Your task to perform on an android device: open sync settings in chrome Image 0: 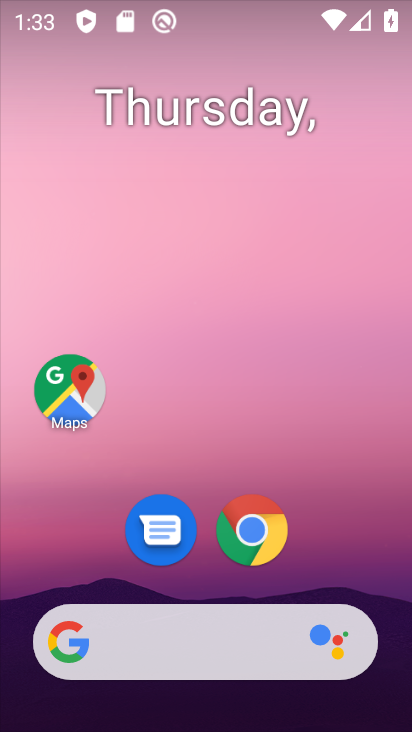
Step 0: drag from (220, 729) to (122, 0)
Your task to perform on an android device: open sync settings in chrome Image 1: 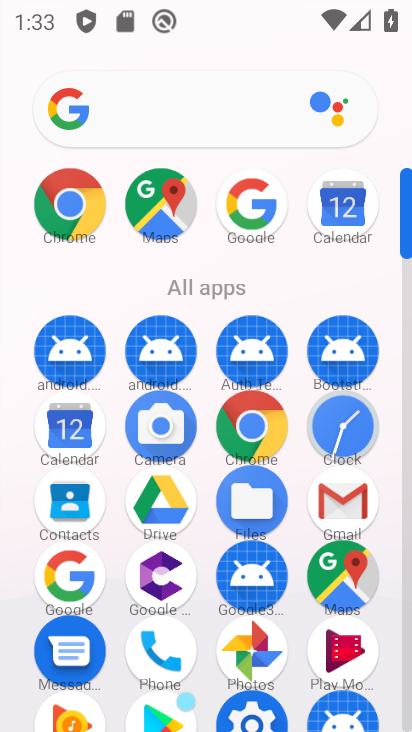
Step 1: drag from (274, 658) to (211, 102)
Your task to perform on an android device: open sync settings in chrome Image 2: 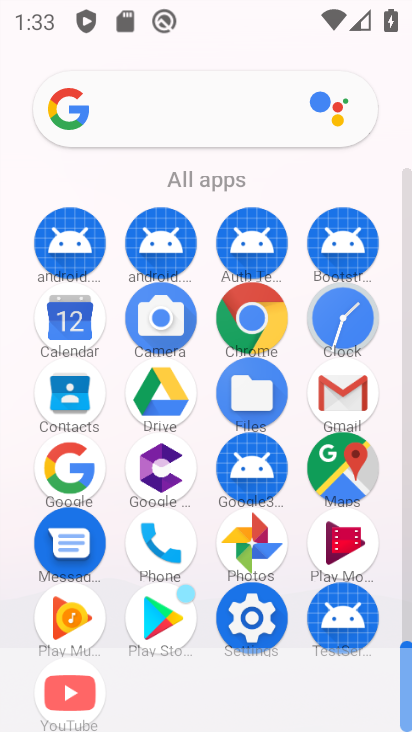
Step 2: click (240, 626)
Your task to perform on an android device: open sync settings in chrome Image 3: 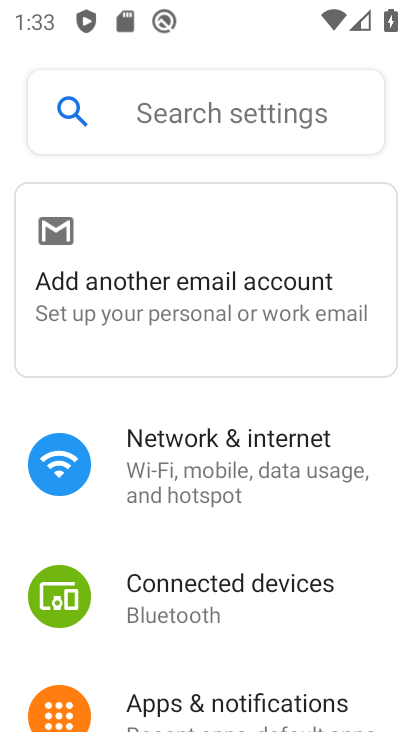
Step 3: press home button
Your task to perform on an android device: open sync settings in chrome Image 4: 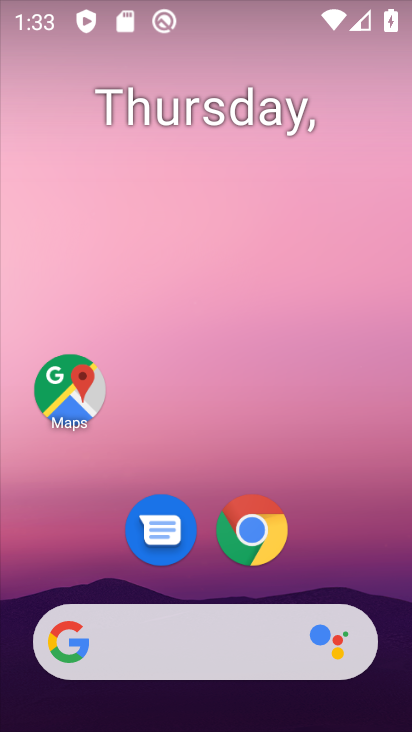
Step 4: click (248, 708)
Your task to perform on an android device: open sync settings in chrome Image 5: 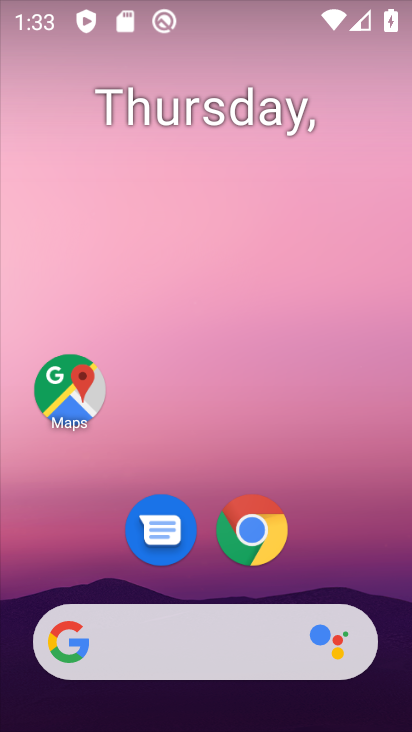
Step 5: click (254, 509)
Your task to perform on an android device: open sync settings in chrome Image 6: 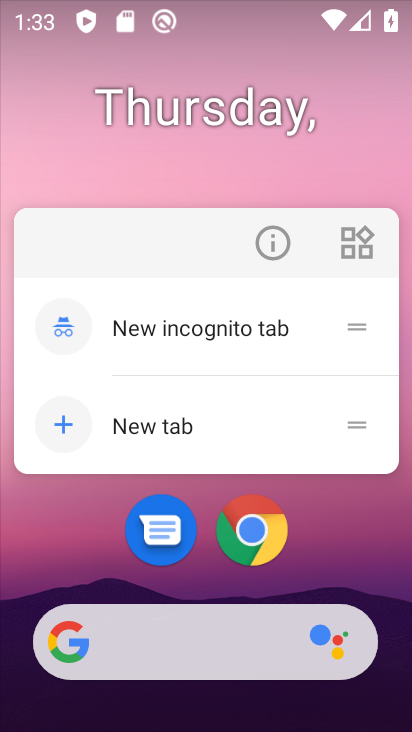
Step 6: click (274, 525)
Your task to perform on an android device: open sync settings in chrome Image 7: 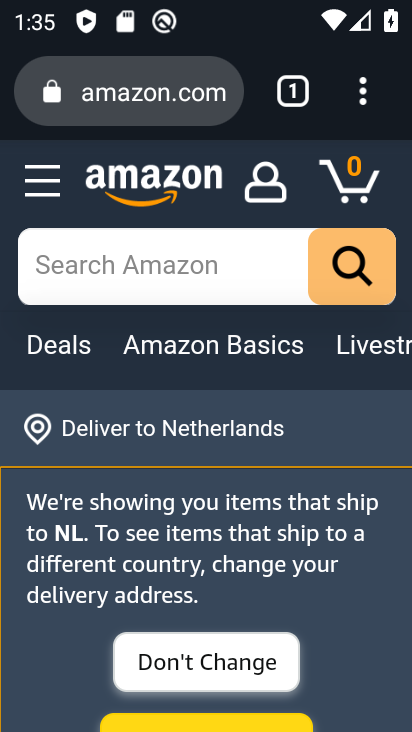
Step 7: click (359, 94)
Your task to perform on an android device: open sync settings in chrome Image 8: 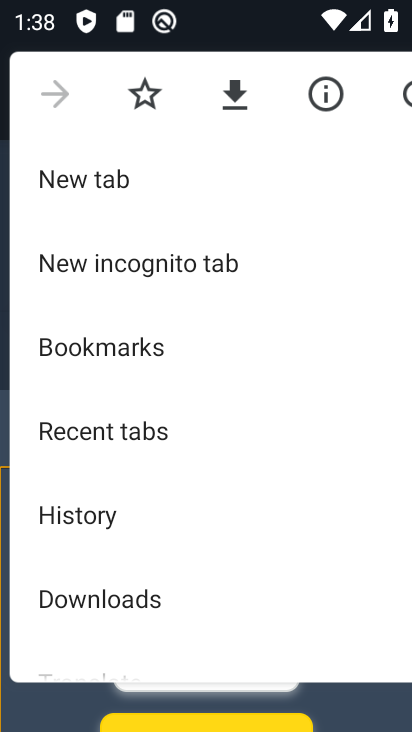
Step 8: drag from (243, 593) to (259, 71)
Your task to perform on an android device: open sync settings in chrome Image 9: 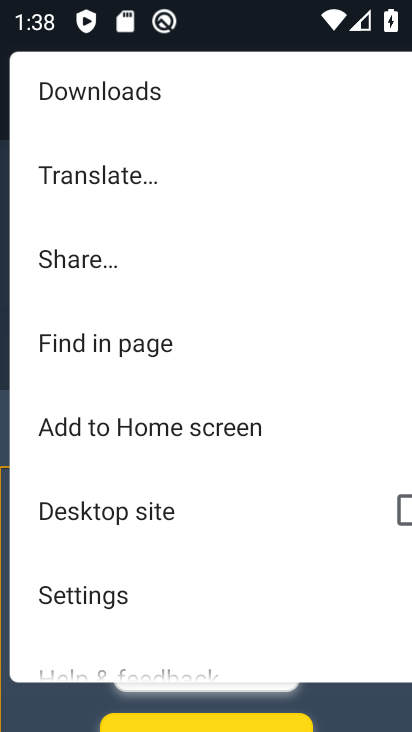
Step 9: click (109, 589)
Your task to perform on an android device: open sync settings in chrome Image 10: 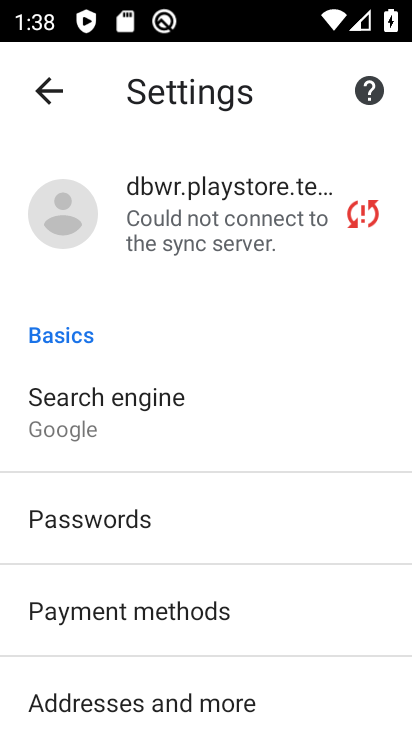
Step 10: click (177, 240)
Your task to perform on an android device: open sync settings in chrome Image 11: 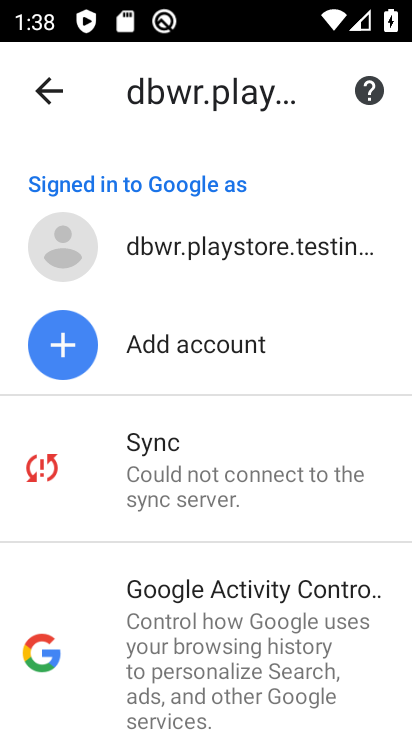
Step 11: task complete